Your task to perform on an android device: Search for a new bronzer Image 0: 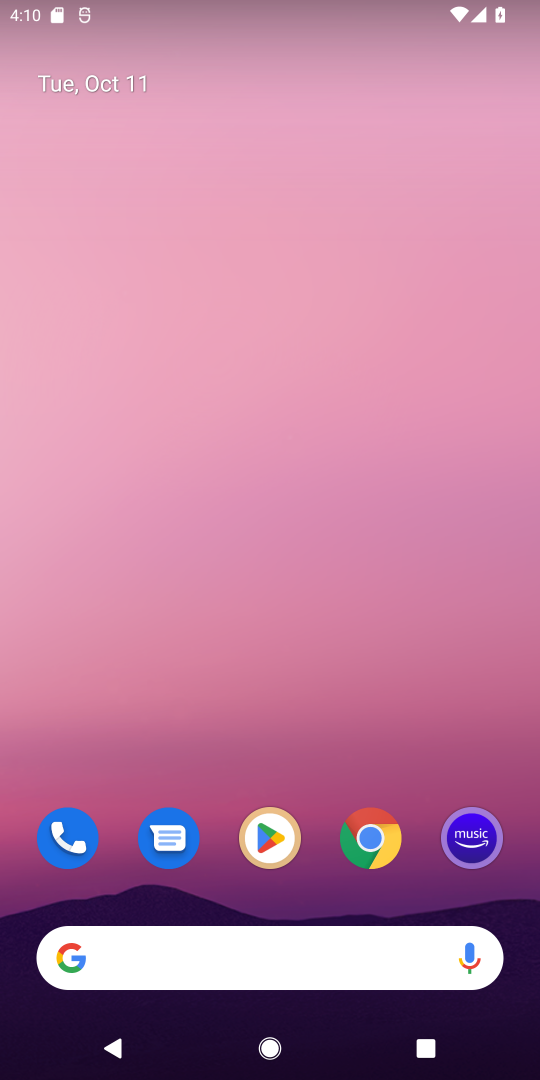
Step 0: click (365, 841)
Your task to perform on an android device: Search for a new bronzer Image 1: 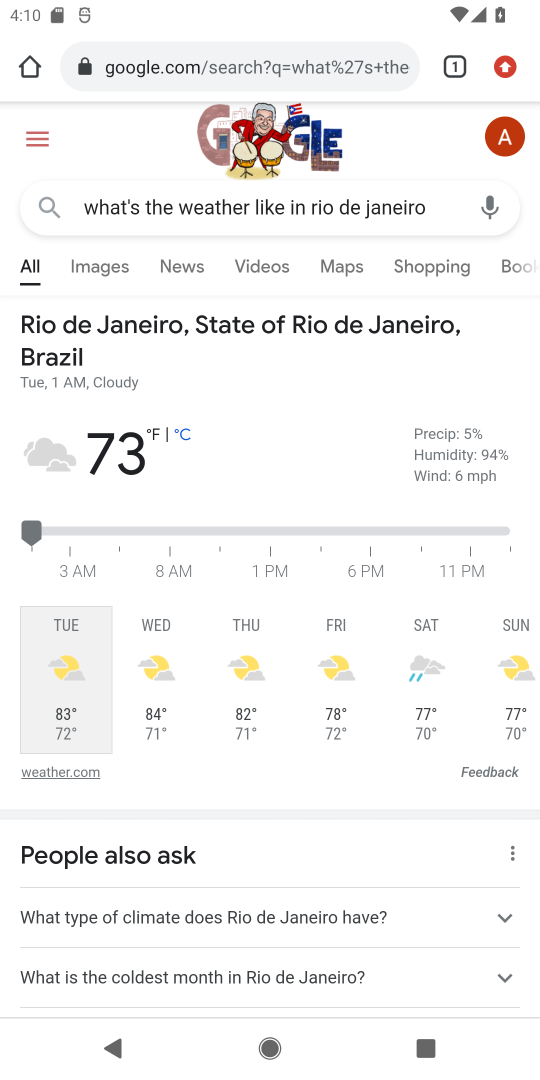
Step 1: click (172, 77)
Your task to perform on an android device: Search for a new bronzer Image 2: 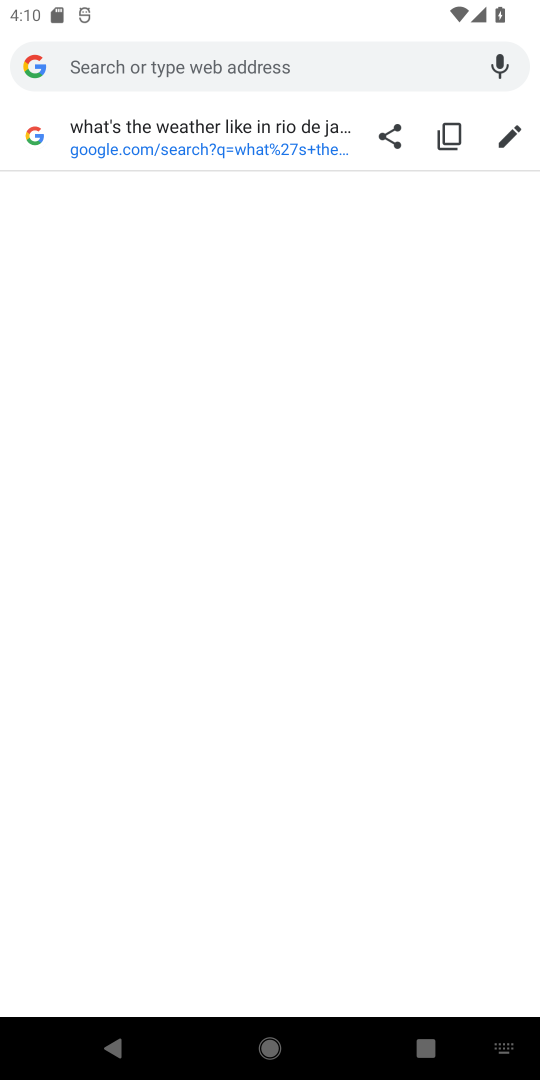
Step 2: type "new bronzer"
Your task to perform on an android device: Search for a new bronzer Image 3: 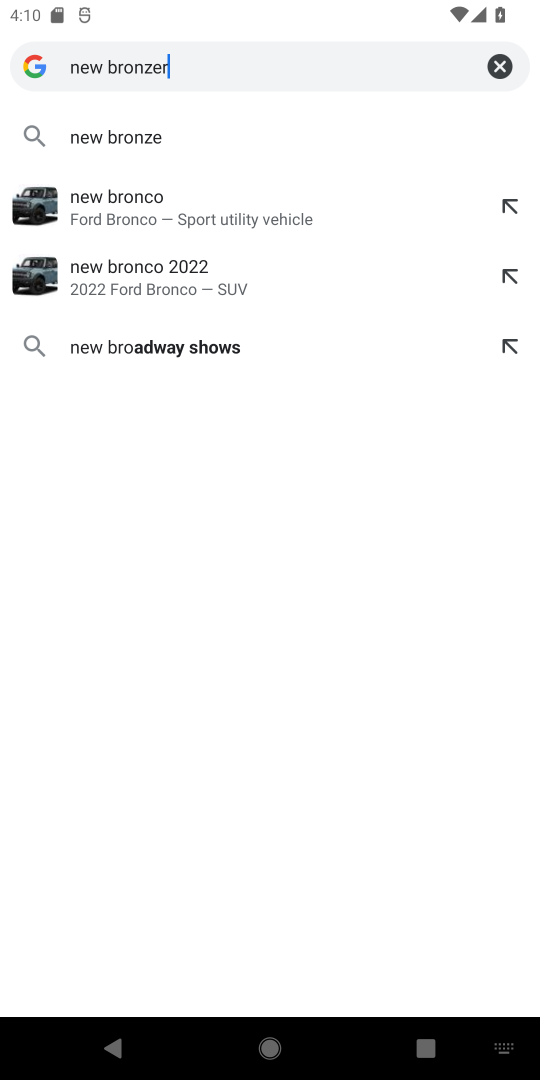
Step 3: type ""
Your task to perform on an android device: Search for a new bronzer Image 4: 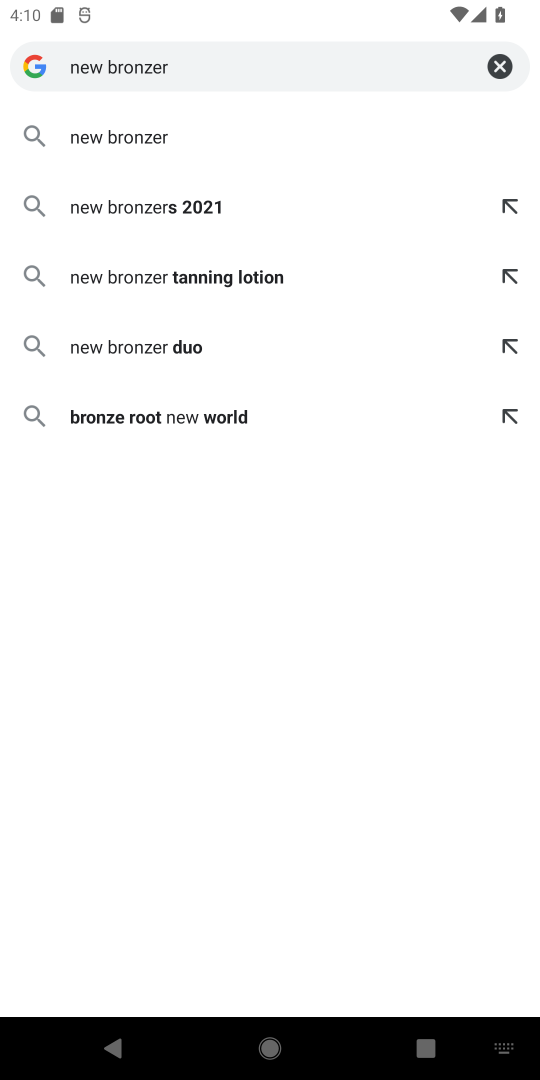
Step 4: click (132, 136)
Your task to perform on an android device: Search for a new bronzer Image 5: 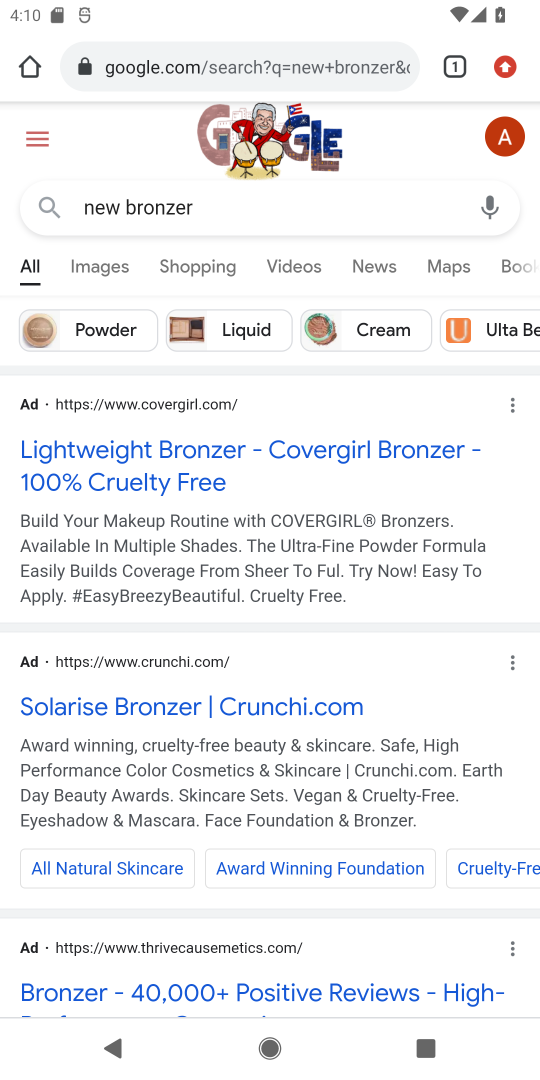
Step 5: drag from (157, 767) to (211, 342)
Your task to perform on an android device: Search for a new bronzer Image 6: 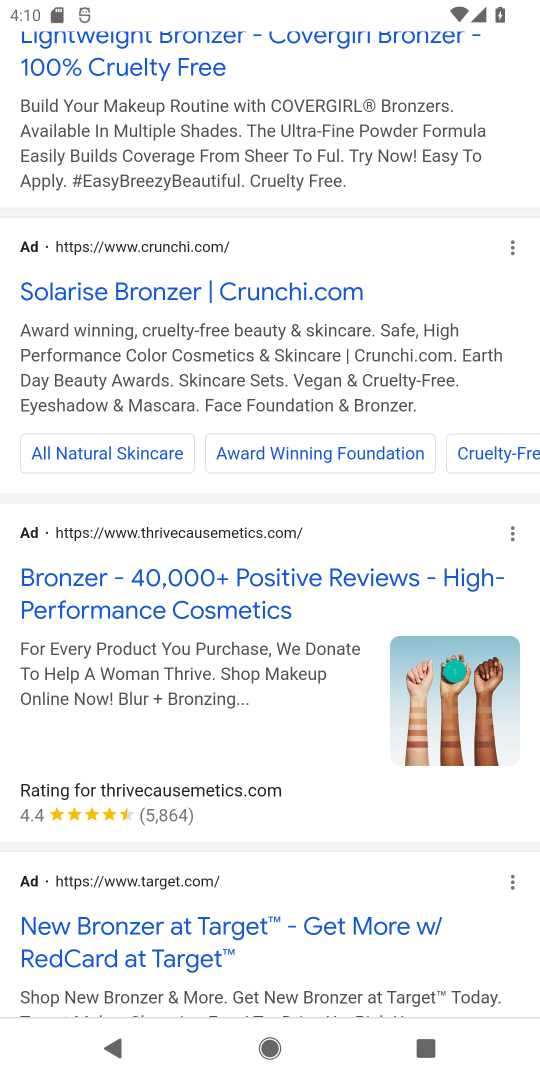
Step 6: click (153, 924)
Your task to perform on an android device: Search for a new bronzer Image 7: 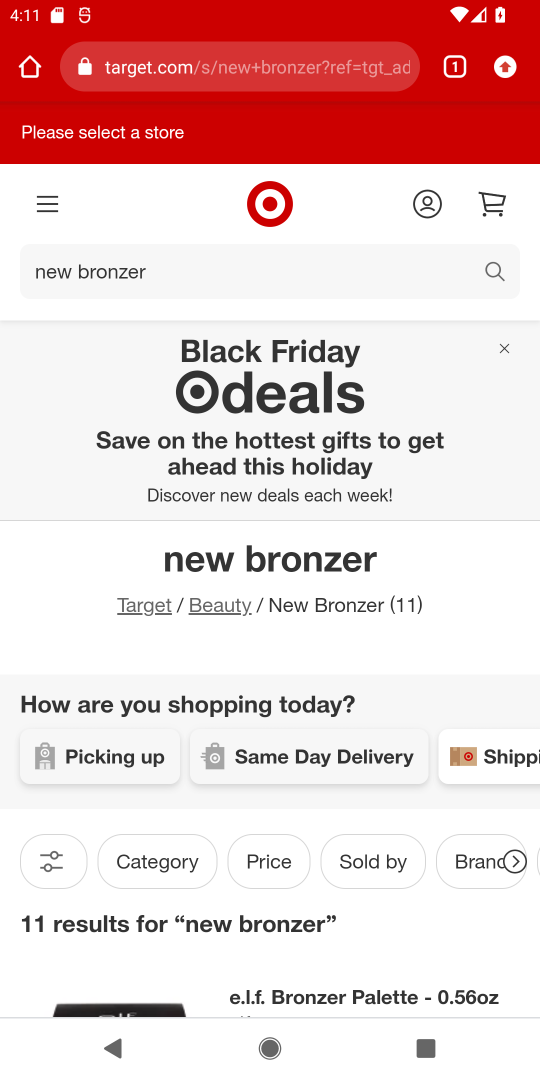
Step 7: task complete